Your task to perform on an android device: turn off translation in the chrome app Image 0: 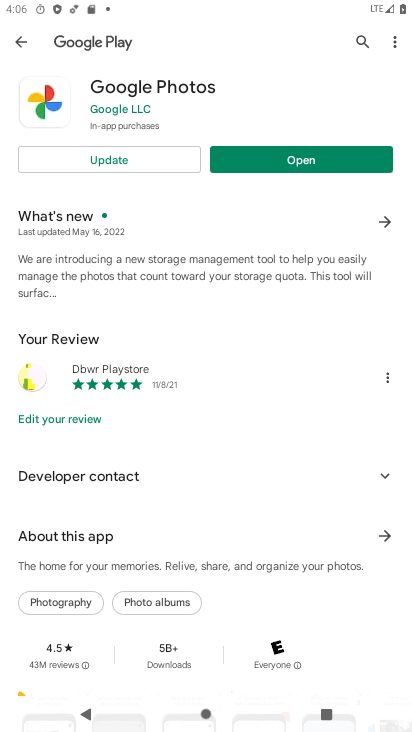
Step 0: press home button
Your task to perform on an android device: turn off translation in the chrome app Image 1: 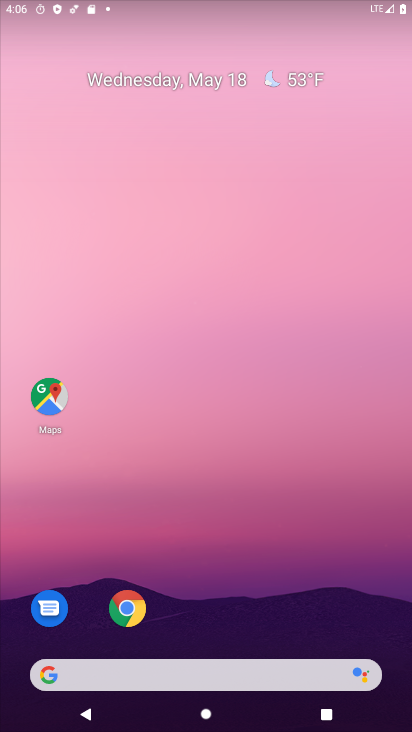
Step 1: drag from (167, 677) to (210, 5)
Your task to perform on an android device: turn off translation in the chrome app Image 2: 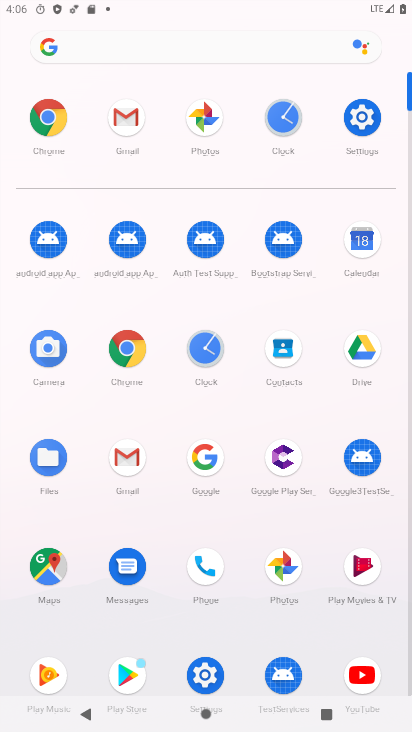
Step 2: click (127, 366)
Your task to perform on an android device: turn off translation in the chrome app Image 3: 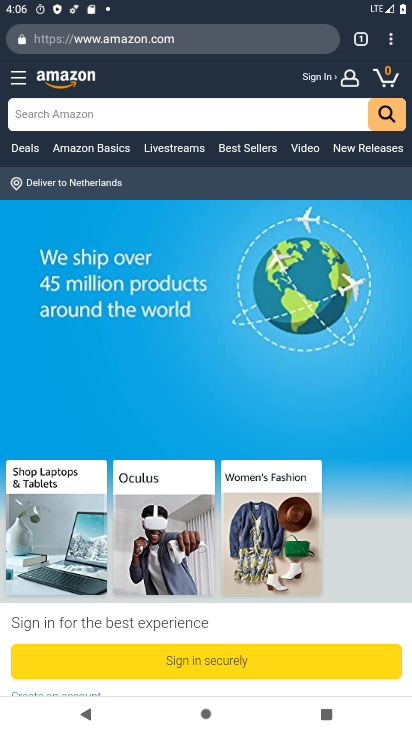
Step 3: click (390, 48)
Your task to perform on an android device: turn off translation in the chrome app Image 4: 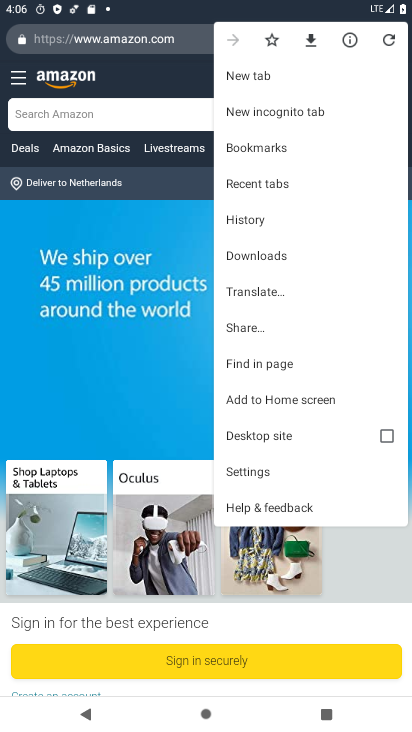
Step 4: click (255, 465)
Your task to perform on an android device: turn off translation in the chrome app Image 5: 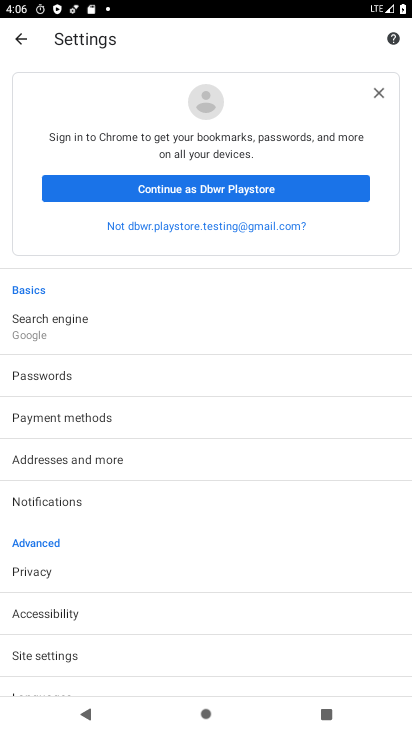
Step 5: drag from (137, 670) to (148, 438)
Your task to perform on an android device: turn off translation in the chrome app Image 6: 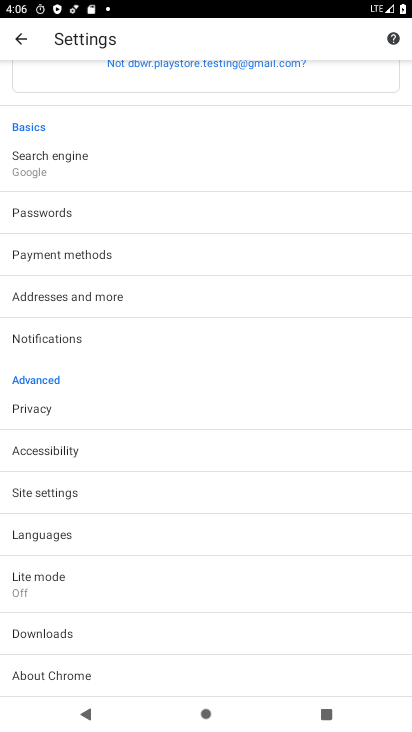
Step 6: click (81, 535)
Your task to perform on an android device: turn off translation in the chrome app Image 7: 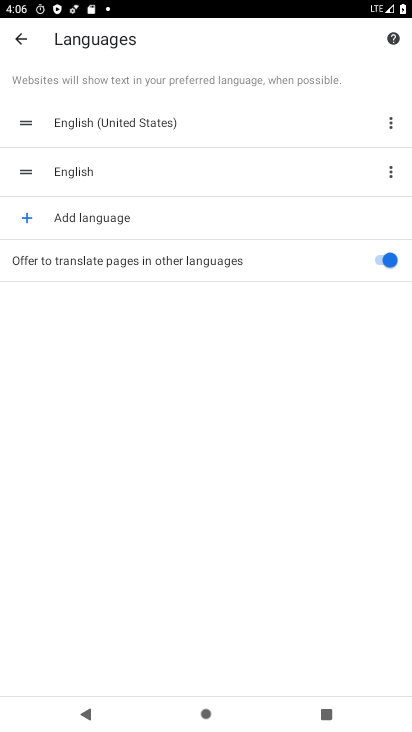
Step 7: click (375, 260)
Your task to perform on an android device: turn off translation in the chrome app Image 8: 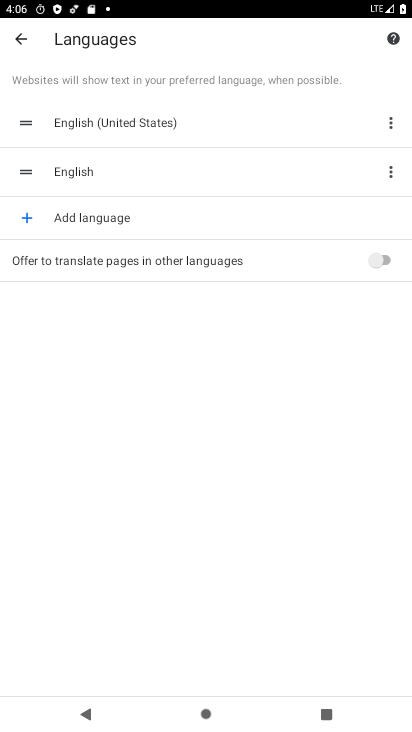
Step 8: task complete